Your task to perform on an android device: open the mobile data screen to see how much data has been used Image 0: 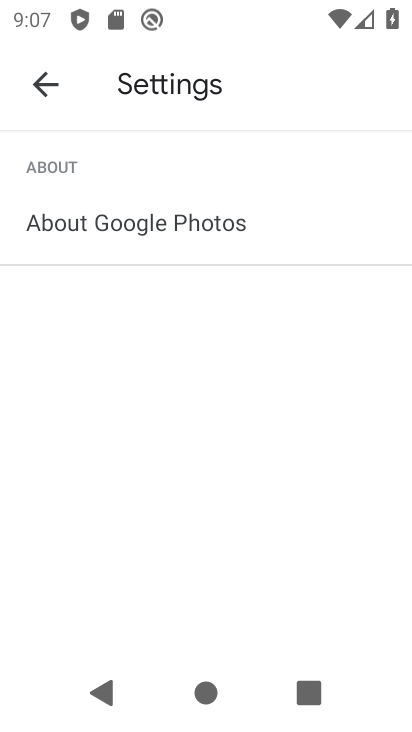
Step 0: press home button
Your task to perform on an android device: open the mobile data screen to see how much data has been used Image 1: 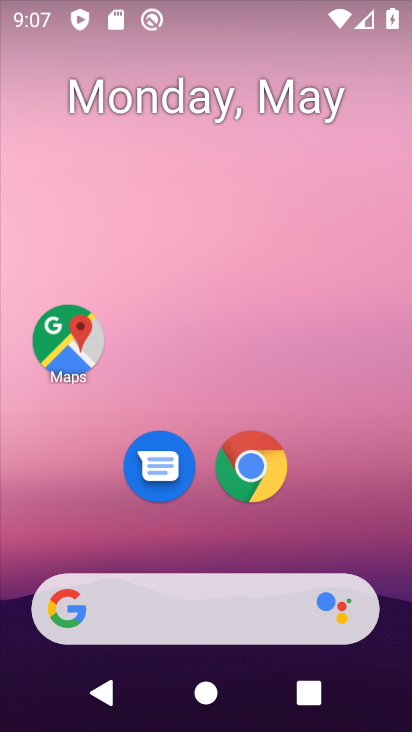
Step 1: drag from (264, 542) to (394, 86)
Your task to perform on an android device: open the mobile data screen to see how much data has been used Image 2: 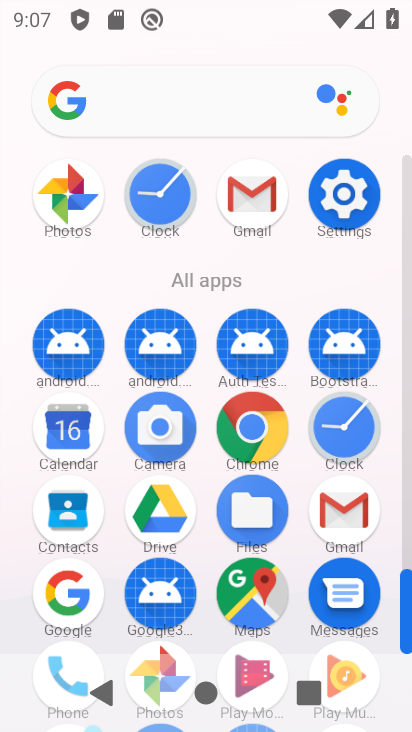
Step 2: click (342, 185)
Your task to perform on an android device: open the mobile data screen to see how much data has been used Image 3: 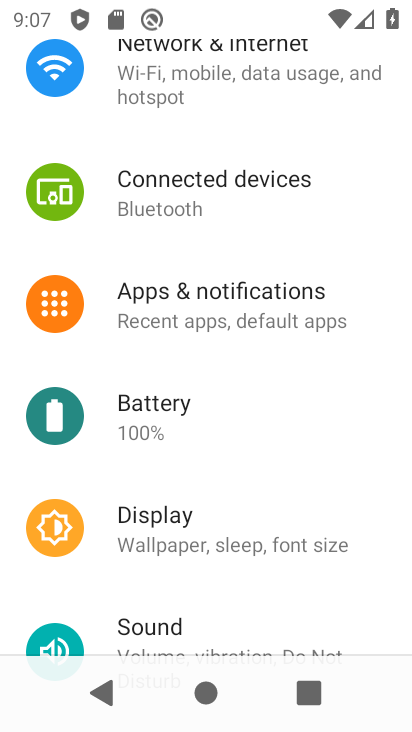
Step 3: click (223, 78)
Your task to perform on an android device: open the mobile data screen to see how much data has been used Image 4: 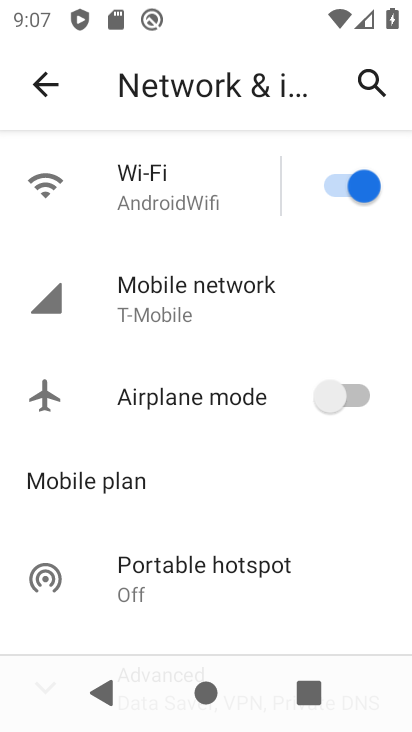
Step 4: click (137, 317)
Your task to perform on an android device: open the mobile data screen to see how much data has been used Image 5: 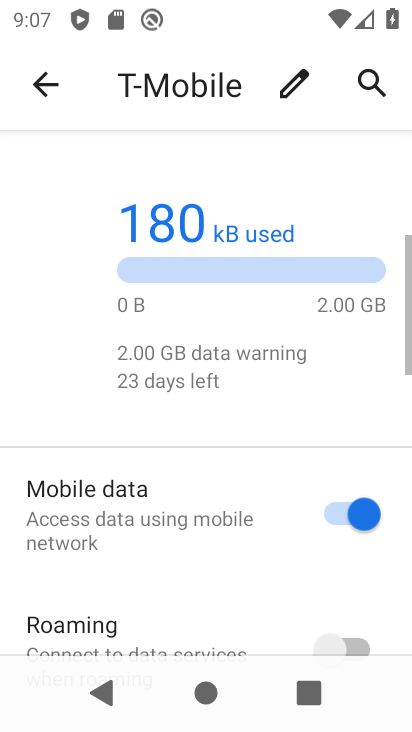
Step 5: drag from (210, 561) to (255, 247)
Your task to perform on an android device: open the mobile data screen to see how much data has been used Image 6: 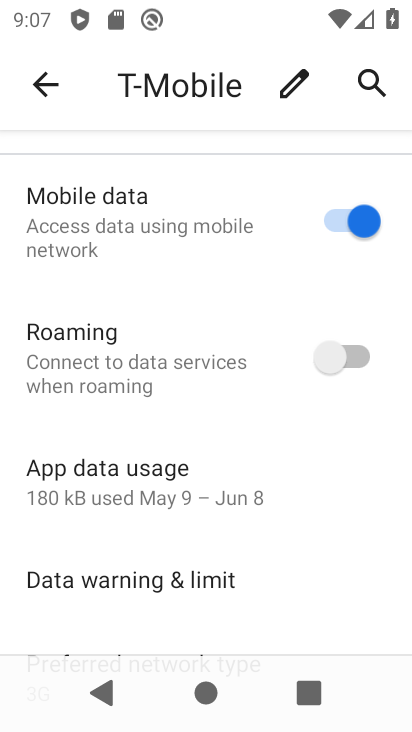
Step 6: click (119, 472)
Your task to perform on an android device: open the mobile data screen to see how much data has been used Image 7: 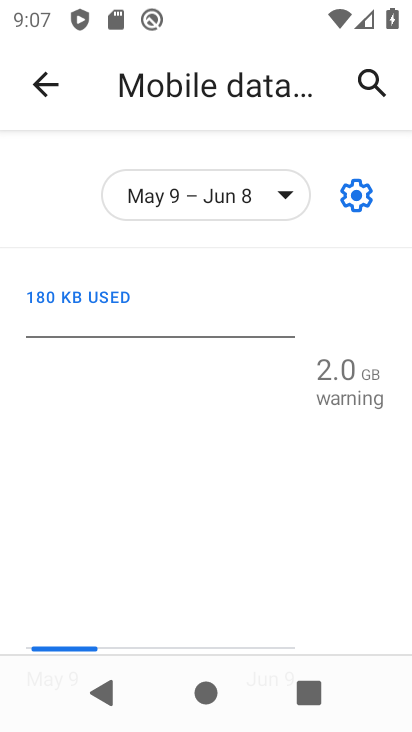
Step 7: task complete